Your task to perform on an android device: Open calendar and show me the third week of next month Image 0: 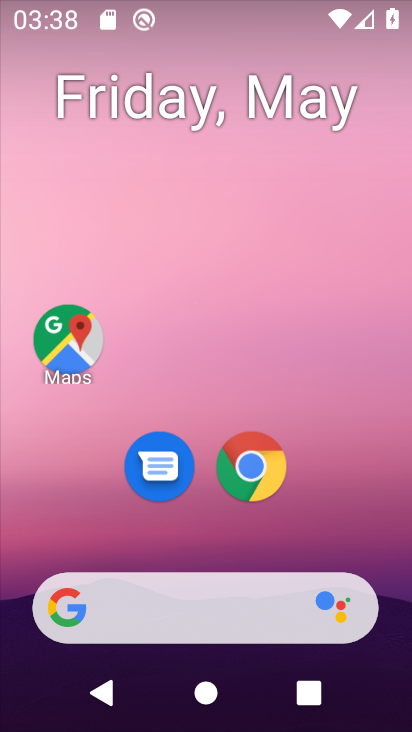
Step 0: drag from (392, 320) to (394, 92)
Your task to perform on an android device: Open calendar and show me the third week of next month Image 1: 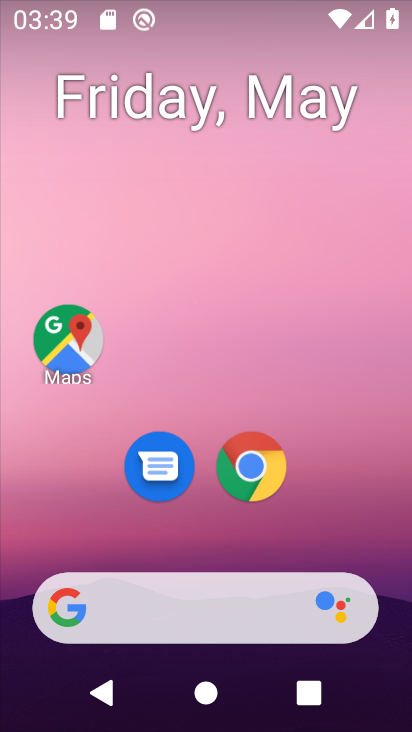
Step 1: drag from (399, 656) to (393, 238)
Your task to perform on an android device: Open calendar and show me the third week of next month Image 2: 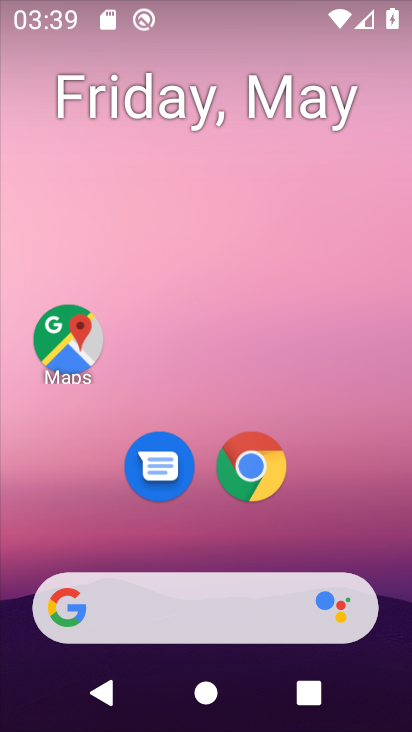
Step 2: click (369, 301)
Your task to perform on an android device: Open calendar and show me the third week of next month Image 3: 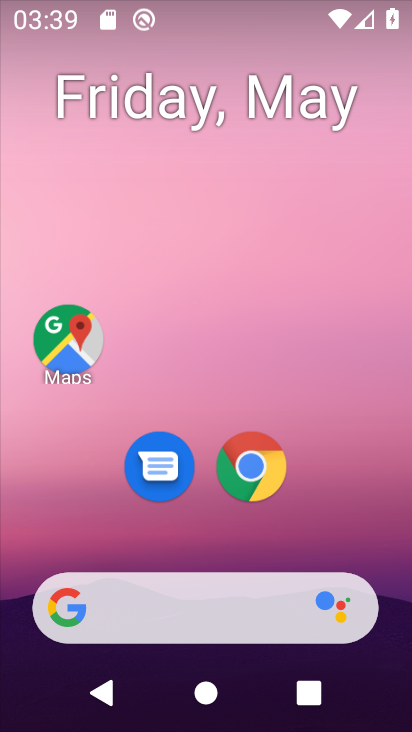
Step 3: drag from (387, 666) to (389, 247)
Your task to perform on an android device: Open calendar and show me the third week of next month Image 4: 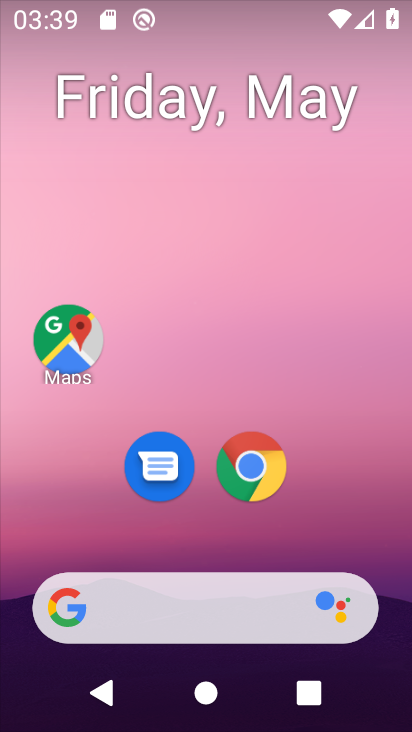
Step 4: drag from (391, 677) to (406, 243)
Your task to perform on an android device: Open calendar and show me the third week of next month Image 5: 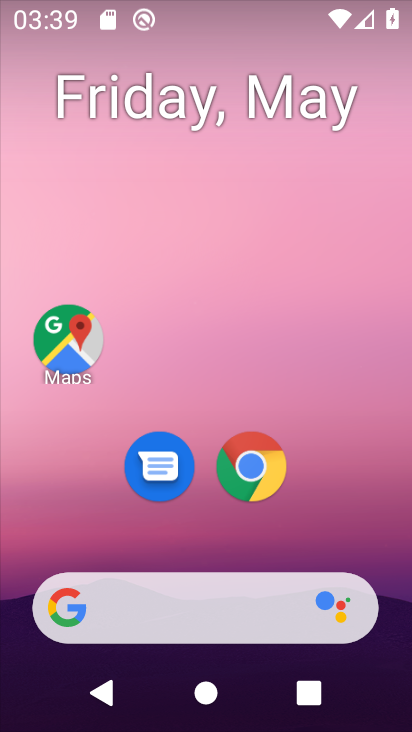
Step 5: drag from (403, 660) to (411, 87)
Your task to perform on an android device: Open calendar and show me the third week of next month Image 6: 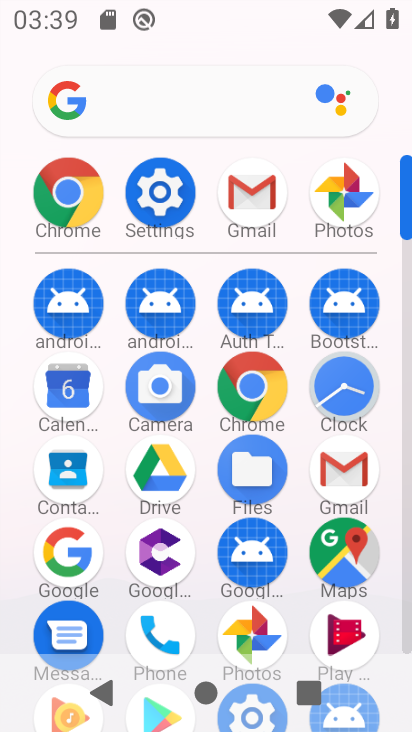
Step 6: click (68, 400)
Your task to perform on an android device: Open calendar and show me the third week of next month Image 7: 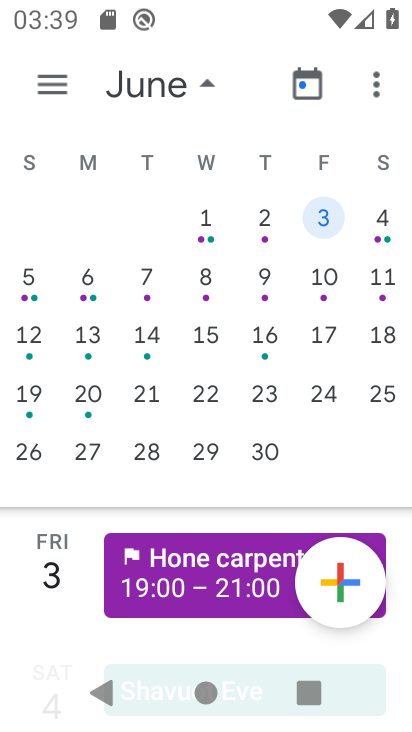
Step 7: click (318, 334)
Your task to perform on an android device: Open calendar and show me the third week of next month Image 8: 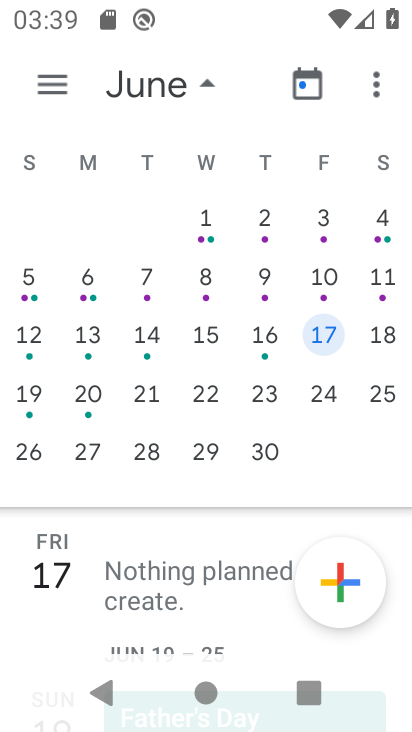
Step 8: task complete